Your task to perform on an android device: toggle airplane mode Image 0: 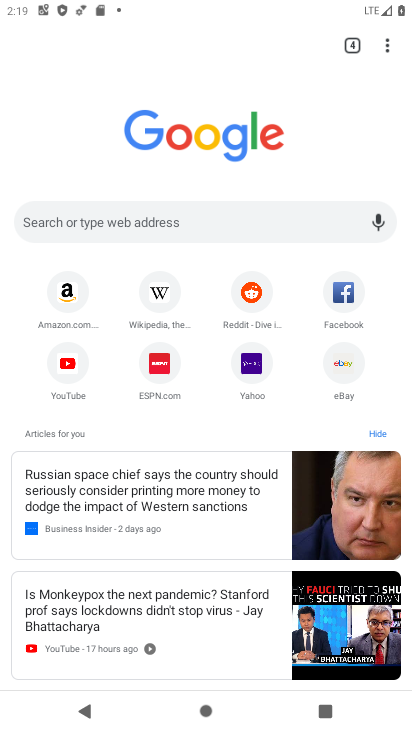
Step 0: press home button
Your task to perform on an android device: toggle airplane mode Image 1: 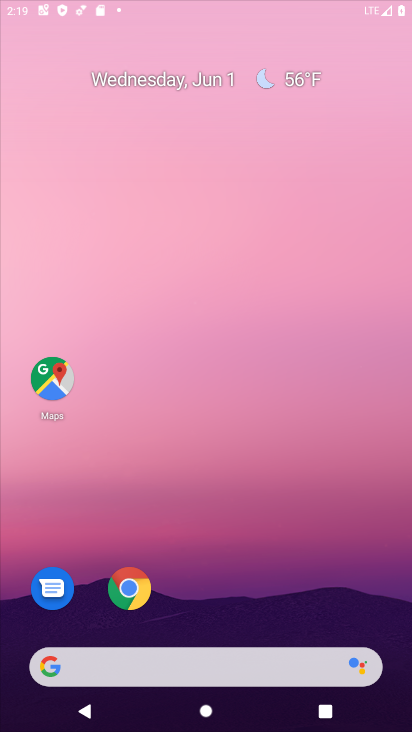
Step 1: drag from (296, 475) to (230, 13)
Your task to perform on an android device: toggle airplane mode Image 2: 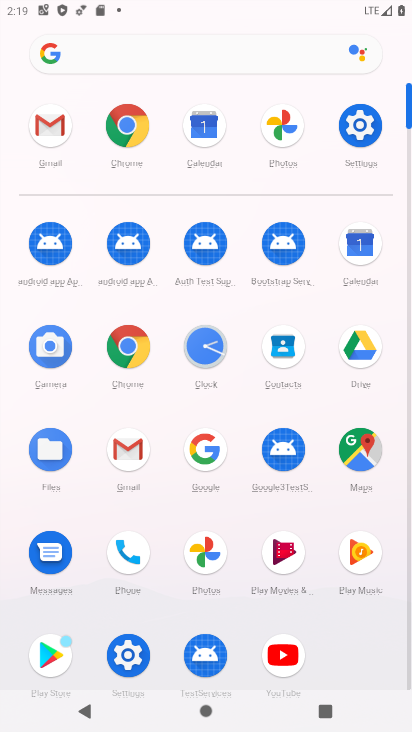
Step 2: click (356, 139)
Your task to perform on an android device: toggle airplane mode Image 3: 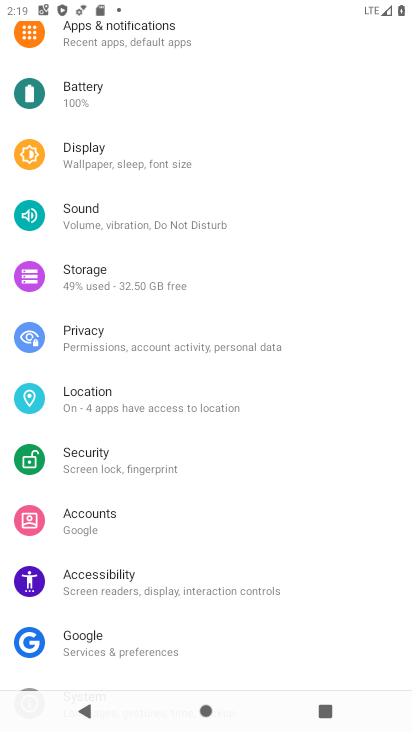
Step 3: drag from (239, 146) to (241, 595)
Your task to perform on an android device: toggle airplane mode Image 4: 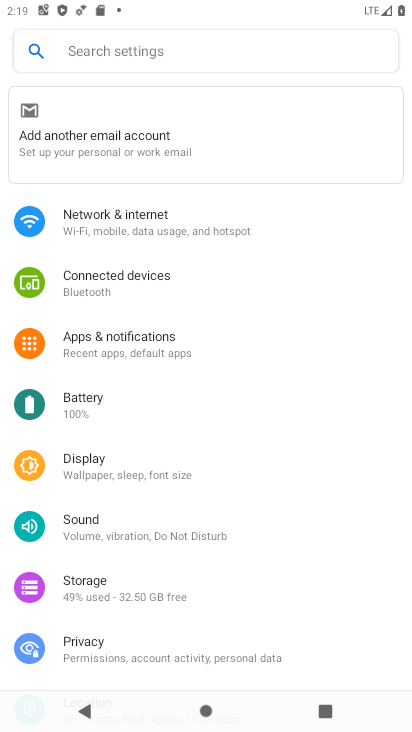
Step 4: click (227, 228)
Your task to perform on an android device: toggle airplane mode Image 5: 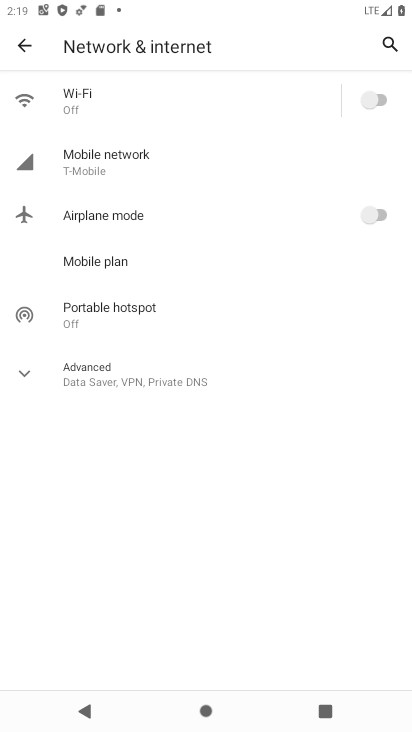
Step 5: click (371, 211)
Your task to perform on an android device: toggle airplane mode Image 6: 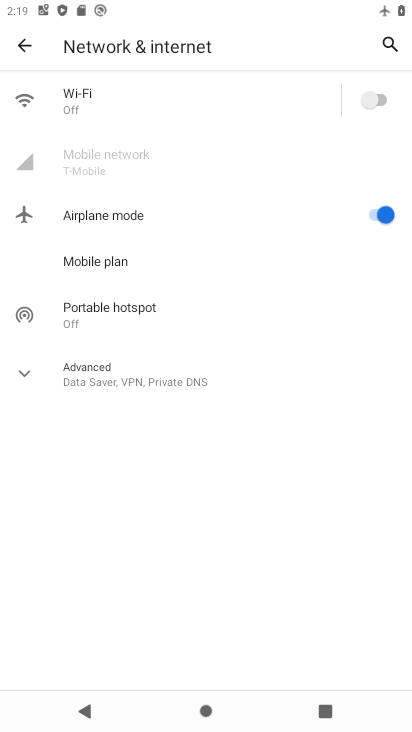
Step 6: task complete